Your task to perform on an android device: turn on location history Image 0: 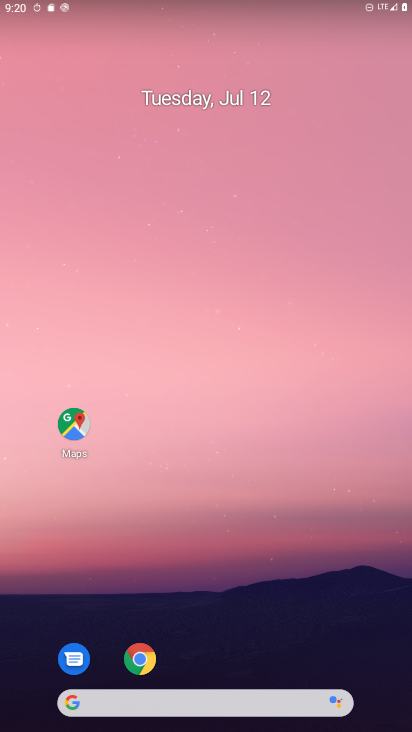
Step 0: drag from (388, 667) to (184, 114)
Your task to perform on an android device: turn on location history Image 1: 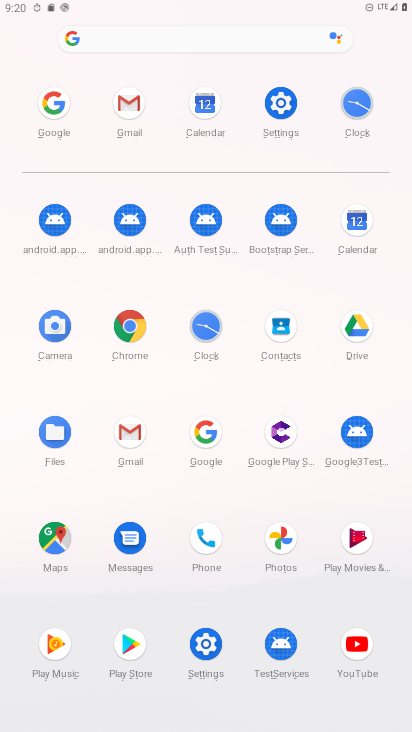
Step 1: click (208, 639)
Your task to perform on an android device: turn on location history Image 2: 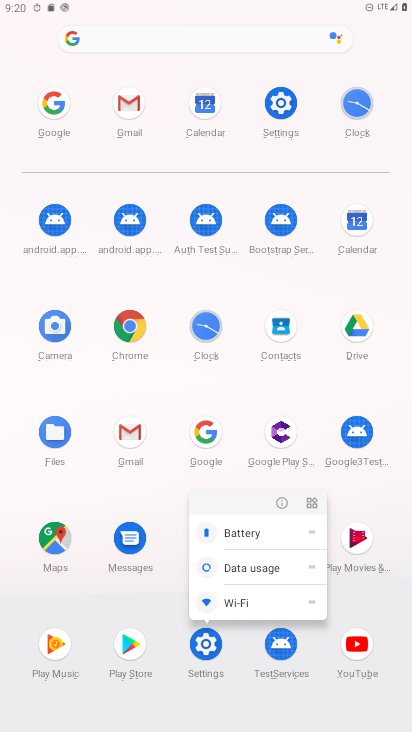
Step 2: click (208, 639)
Your task to perform on an android device: turn on location history Image 3: 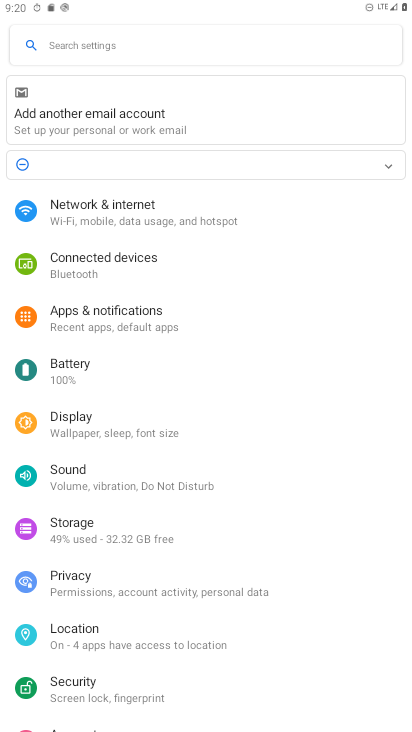
Step 3: click (93, 633)
Your task to perform on an android device: turn on location history Image 4: 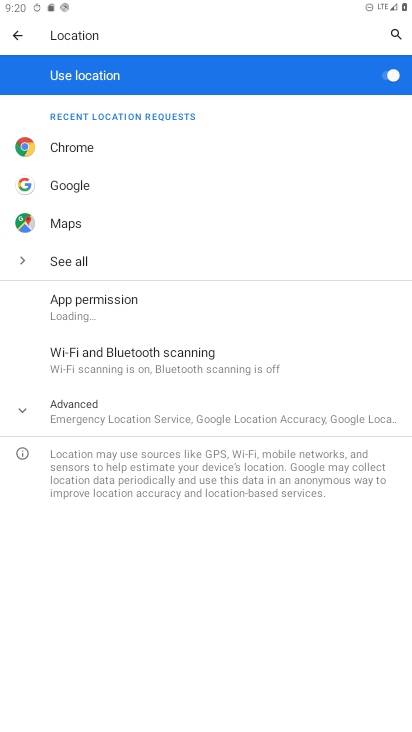
Step 4: click (138, 416)
Your task to perform on an android device: turn on location history Image 5: 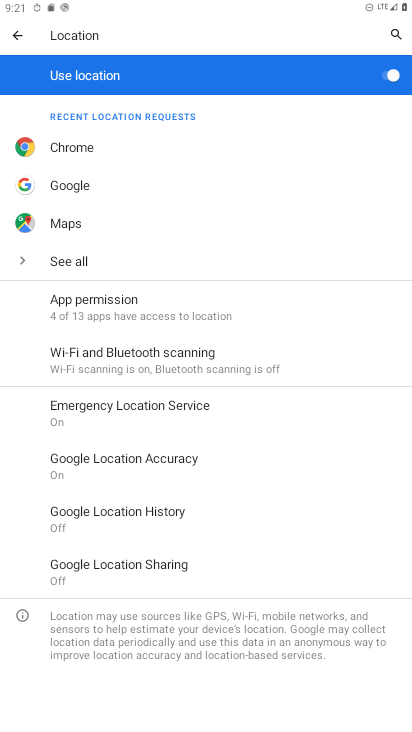
Step 5: click (122, 519)
Your task to perform on an android device: turn on location history Image 6: 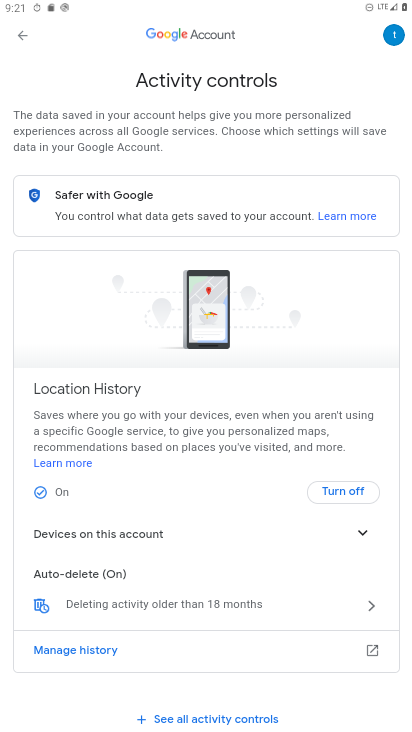
Step 6: click (337, 494)
Your task to perform on an android device: turn on location history Image 7: 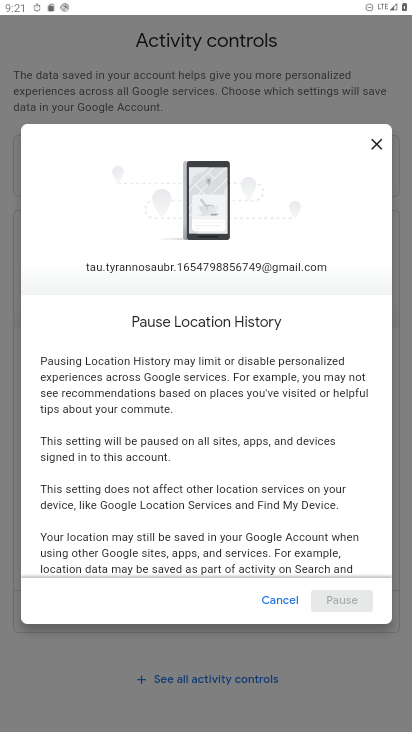
Step 7: task complete